Your task to perform on an android device: Do I have any events tomorrow? Image 0: 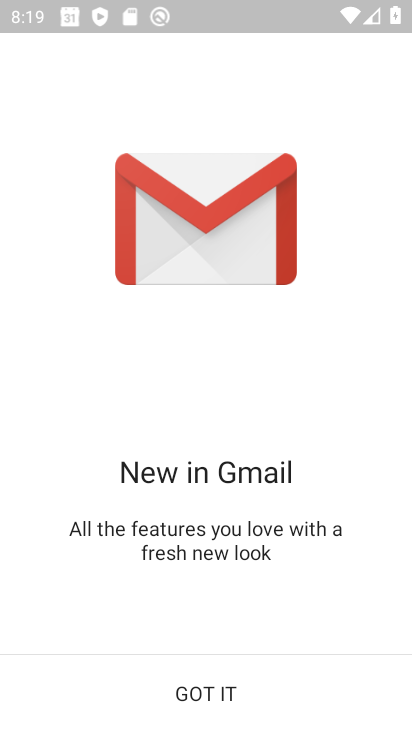
Step 0: click (207, 684)
Your task to perform on an android device: Do I have any events tomorrow? Image 1: 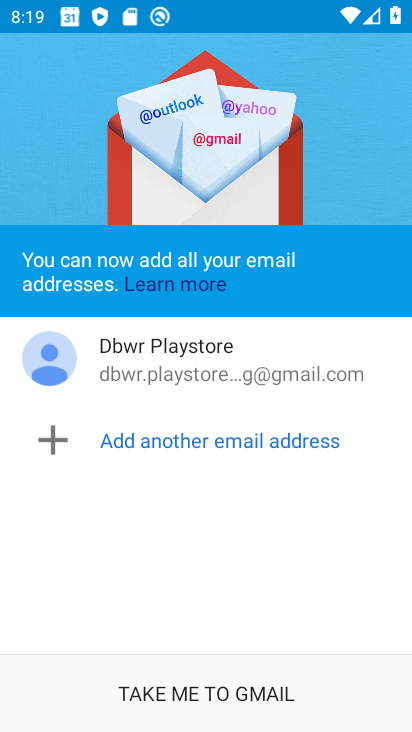
Step 1: press home button
Your task to perform on an android device: Do I have any events tomorrow? Image 2: 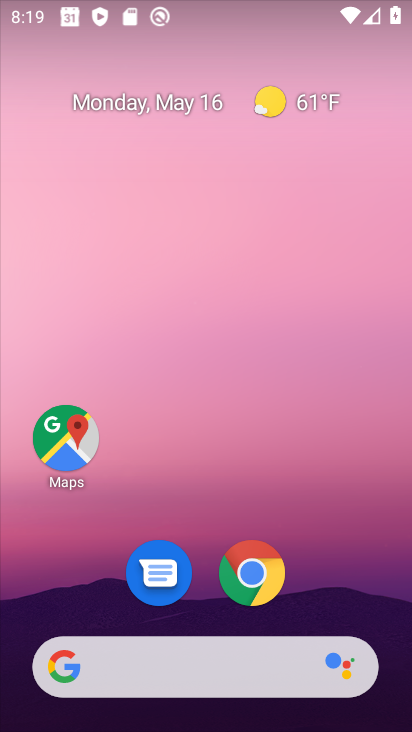
Step 2: drag from (206, 718) to (203, 204)
Your task to perform on an android device: Do I have any events tomorrow? Image 3: 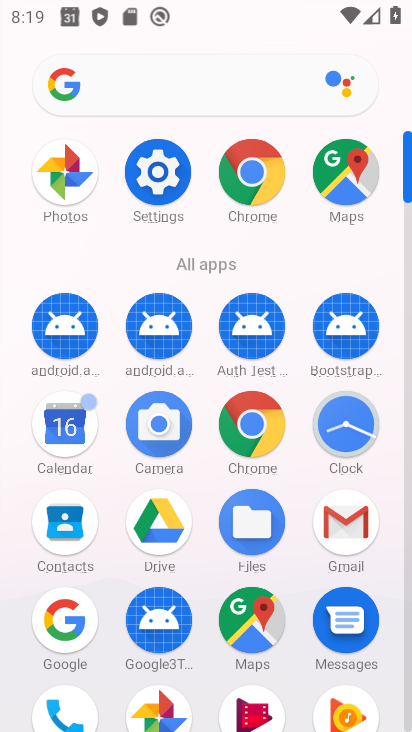
Step 3: click (74, 434)
Your task to perform on an android device: Do I have any events tomorrow? Image 4: 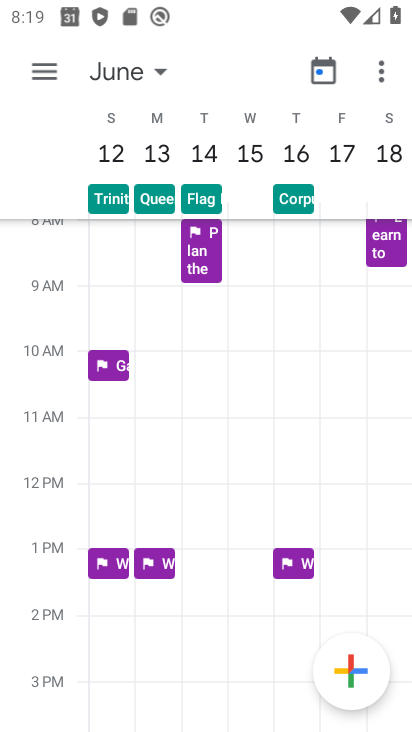
Step 4: click (43, 72)
Your task to perform on an android device: Do I have any events tomorrow? Image 5: 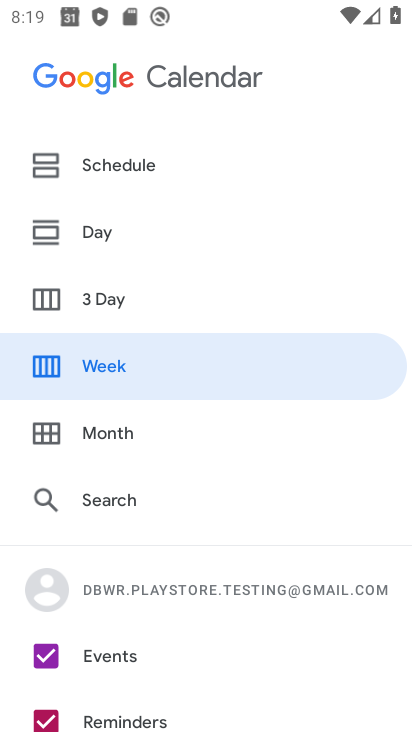
Step 5: drag from (242, 673) to (238, 339)
Your task to perform on an android device: Do I have any events tomorrow? Image 6: 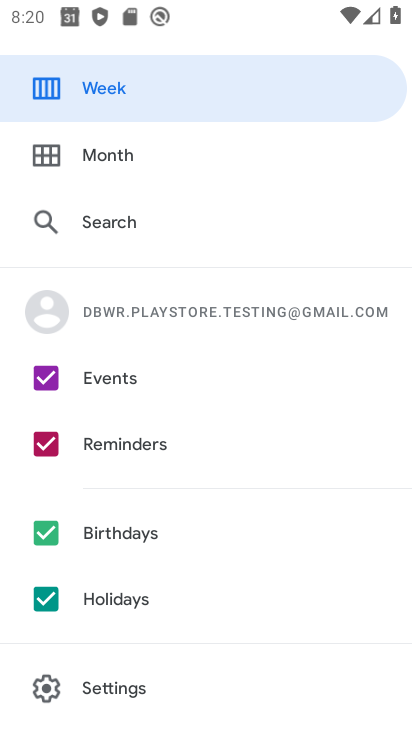
Step 6: click (52, 599)
Your task to perform on an android device: Do I have any events tomorrow? Image 7: 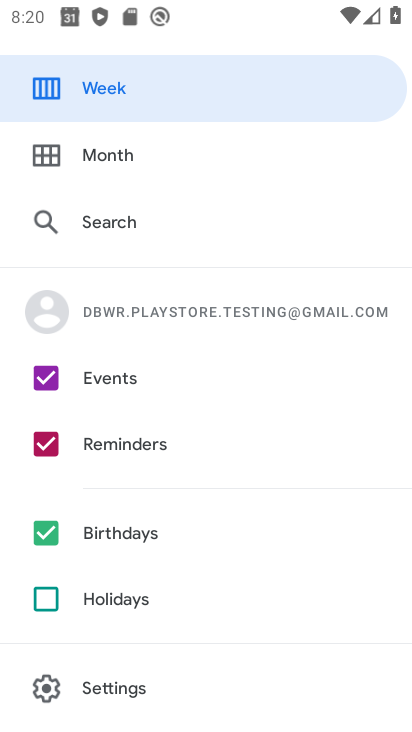
Step 7: click (37, 527)
Your task to perform on an android device: Do I have any events tomorrow? Image 8: 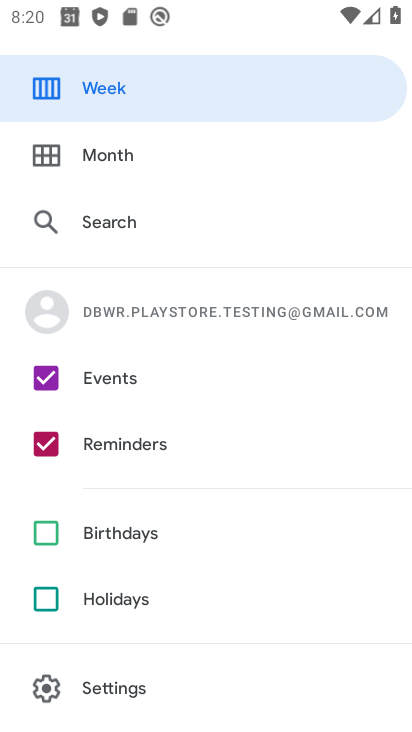
Step 8: click (45, 435)
Your task to perform on an android device: Do I have any events tomorrow? Image 9: 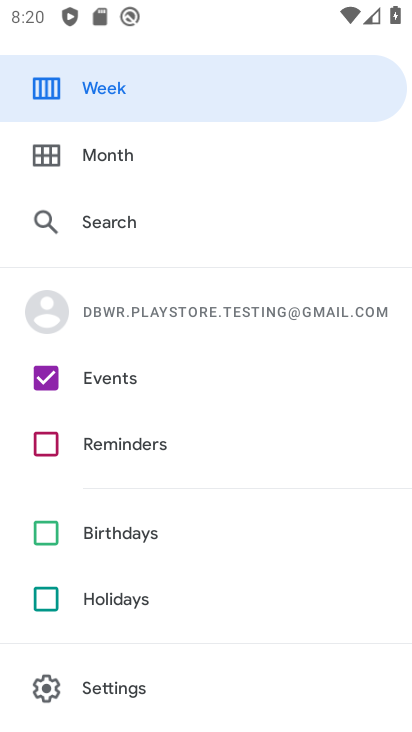
Step 9: drag from (189, 122) to (219, 497)
Your task to perform on an android device: Do I have any events tomorrow? Image 10: 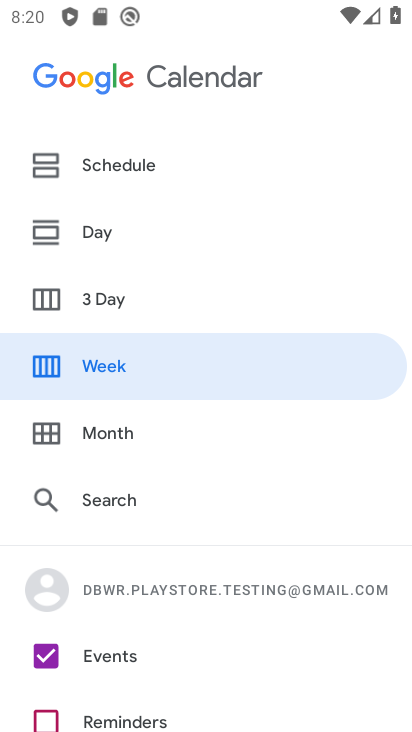
Step 10: click (128, 360)
Your task to perform on an android device: Do I have any events tomorrow? Image 11: 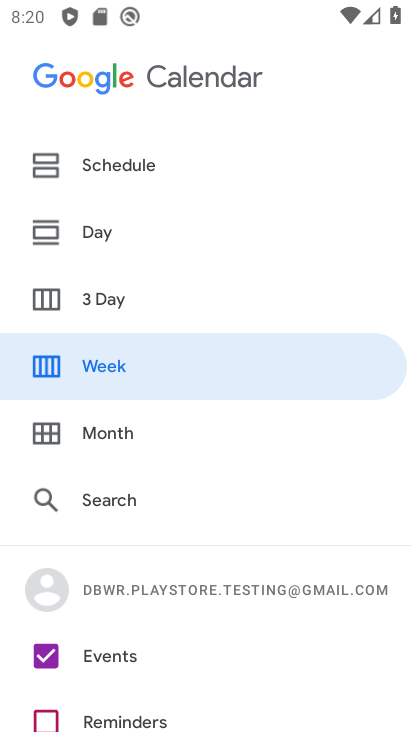
Step 11: click (107, 365)
Your task to perform on an android device: Do I have any events tomorrow? Image 12: 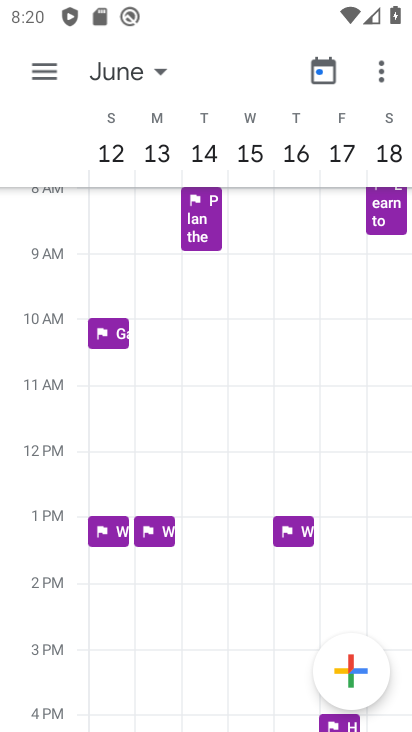
Step 12: drag from (110, 138) to (357, 139)
Your task to perform on an android device: Do I have any events tomorrow? Image 13: 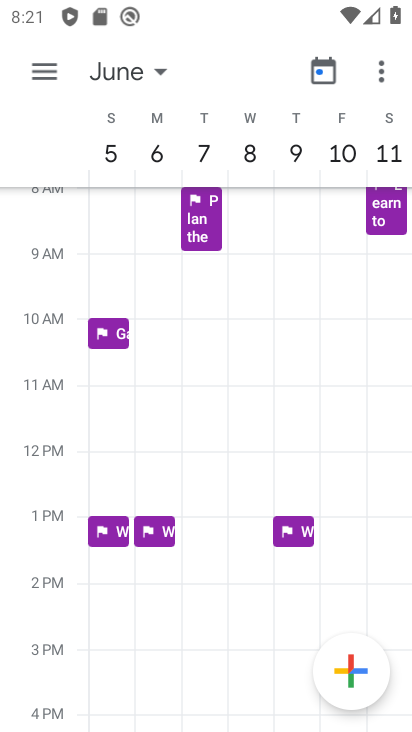
Step 13: drag from (111, 130) to (364, 134)
Your task to perform on an android device: Do I have any events tomorrow? Image 14: 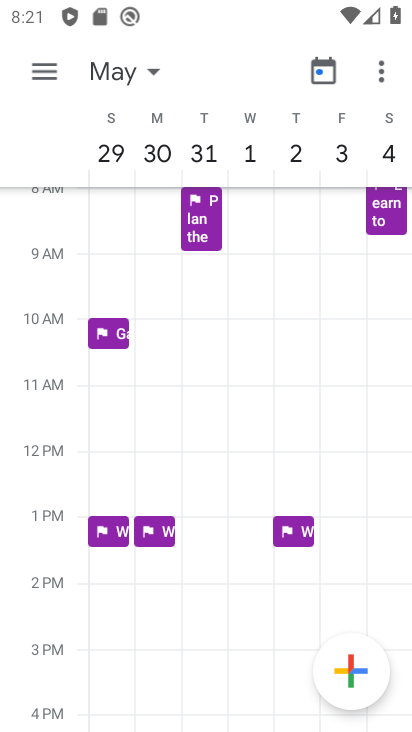
Step 14: drag from (104, 147) to (364, 149)
Your task to perform on an android device: Do I have any events tomorrow? Image 15: 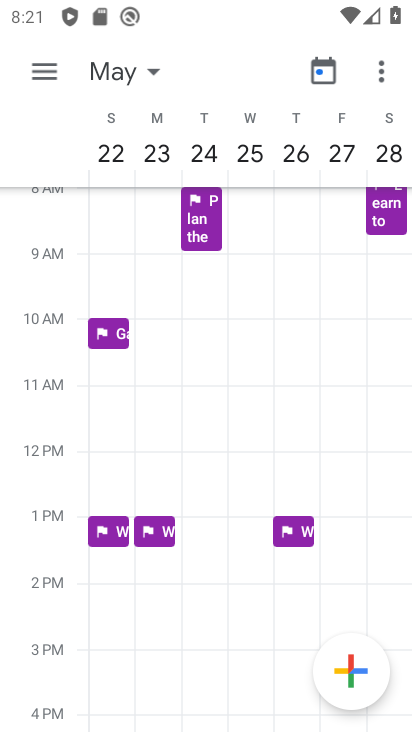
Step 15: click (149, 67)
Your task to perform on an android device: Do I have any events tomorrow? Image 16: 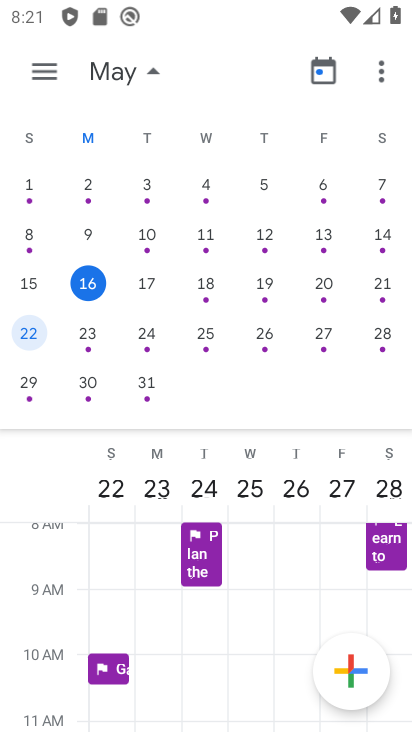
Step 16: click (144, 278)
Your task to perform on an android device: Do I have any events tomorrow? Image 17: 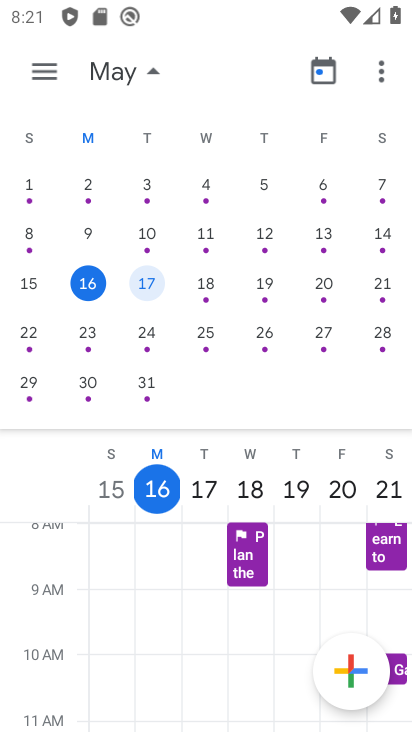
Step 17: click (145, 282)
Your task to perform on an android device: Do I have any events tomorrow? Image 18: 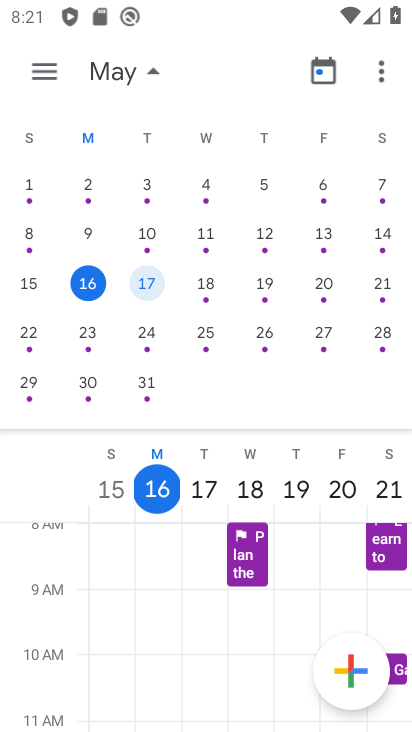
Step 18: click (144, 284)
Your task to perform on an android device: Do I have any events tomorrow? Image 19: 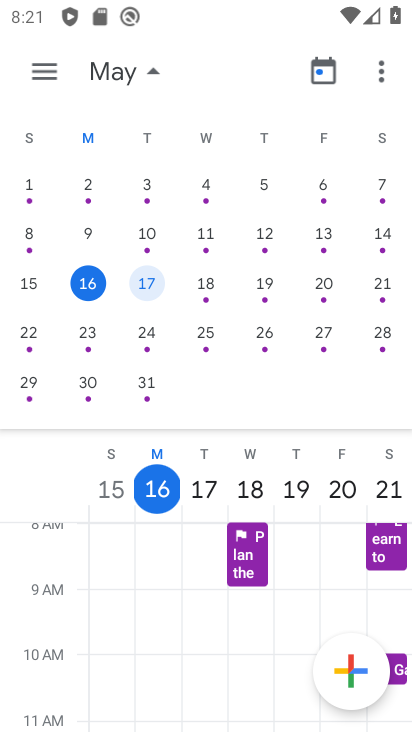
Step 19: click (144, 284)
Your task to perform on an android device: Do I have any events tomorrow? Image 20: 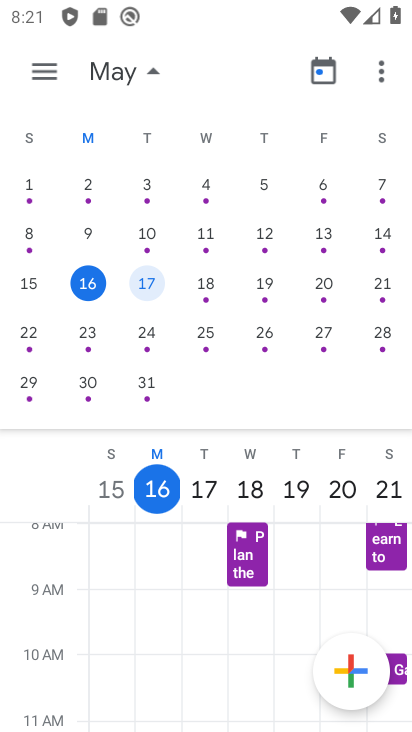
Step 20: click (144, 284)
Your task to perform on an android device: Do I have any events tomorrow? Image 21: 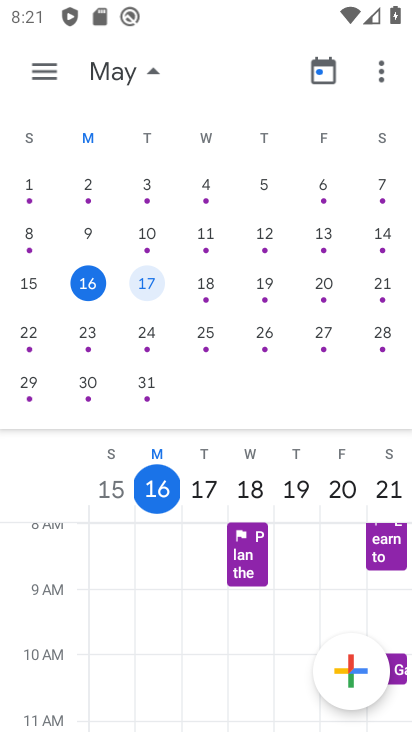
Step 21: click (206, 478)
Your task to perform on an android device: Do I have any events tomorrow? Image 22: 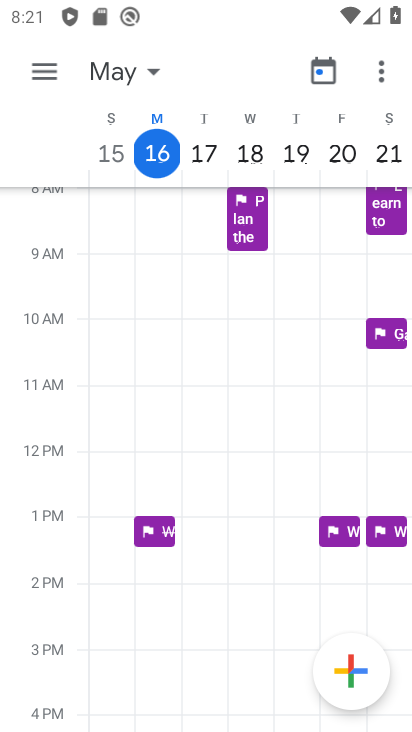
Step 22: task complete